Your task to perform on an android device: Open network settings Image 0: 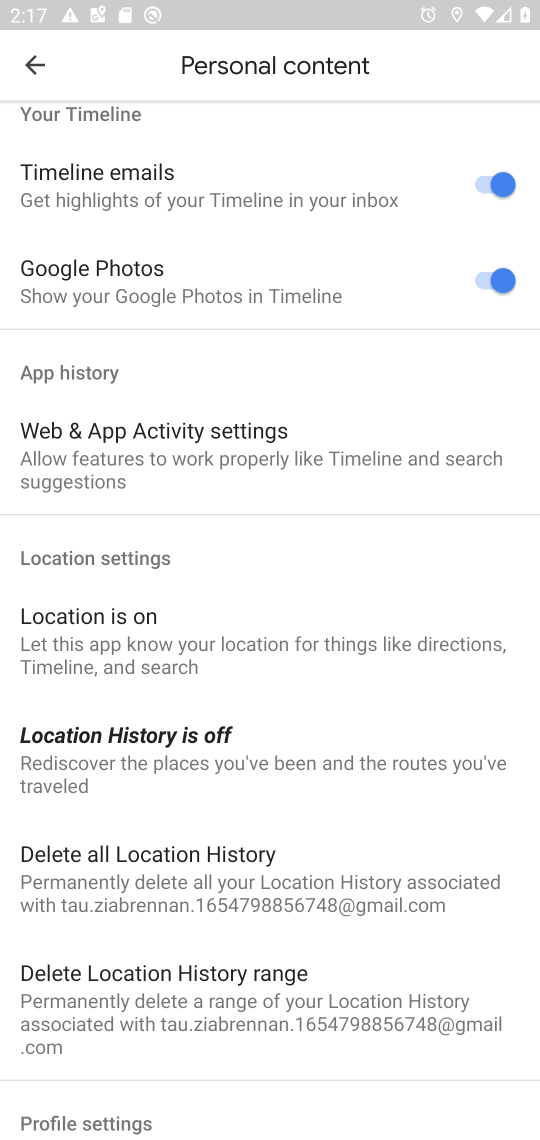
Step 0: press home button
Your task to perform on an android device: Open network settings Image 1: 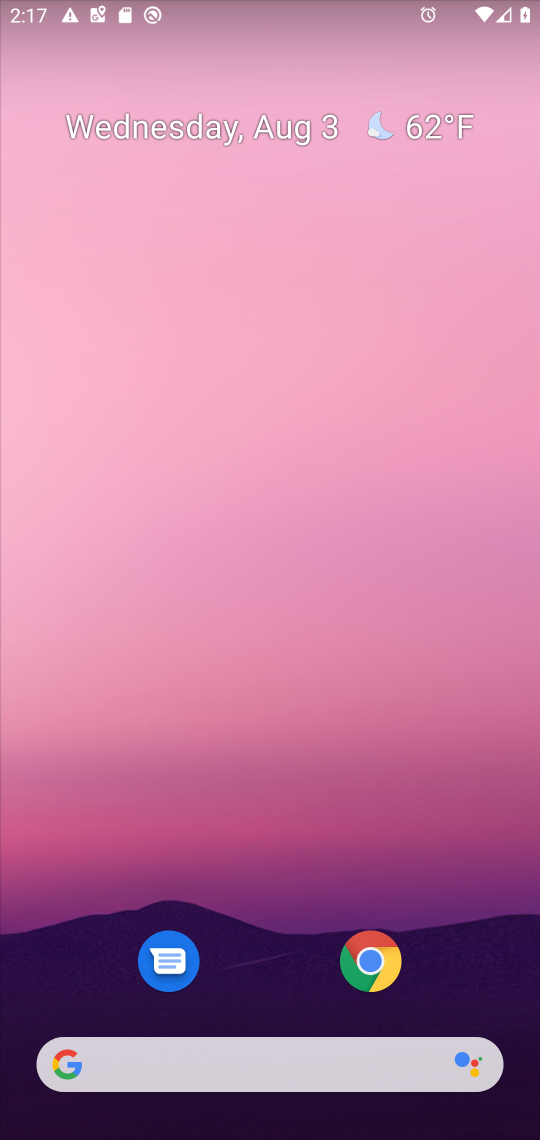
Step 1: drag from (268, 893) to (271, 3)
Your task to perform on an android device: Open network settings Image 2: 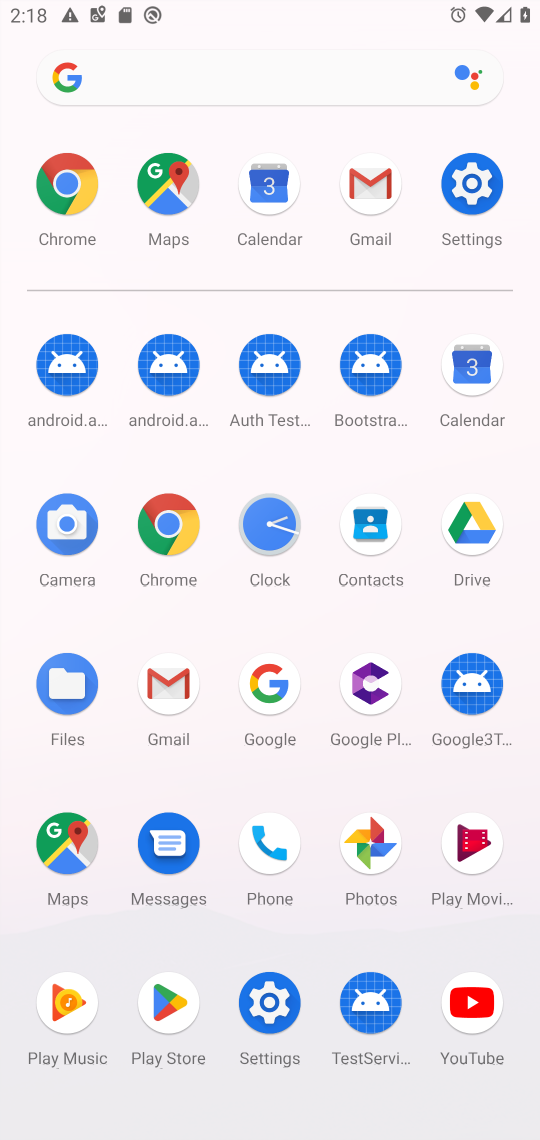
Step 2: click (463, 197)
Your task to perform on an android device: Open network settings Image 3: 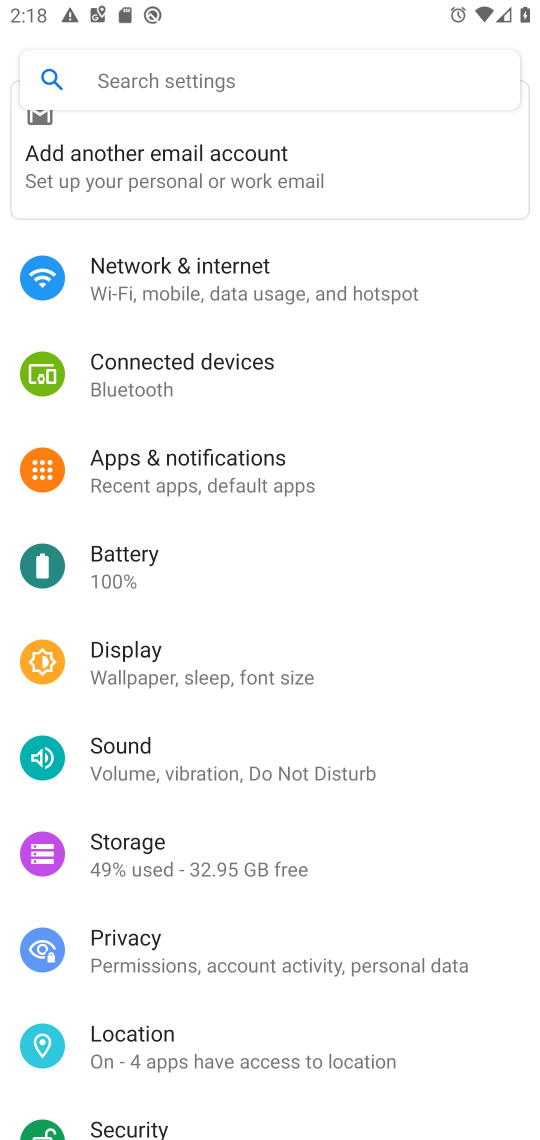
Step 3: click (151, 288)
Your task to perform on an android device: Open network settings Image 4: 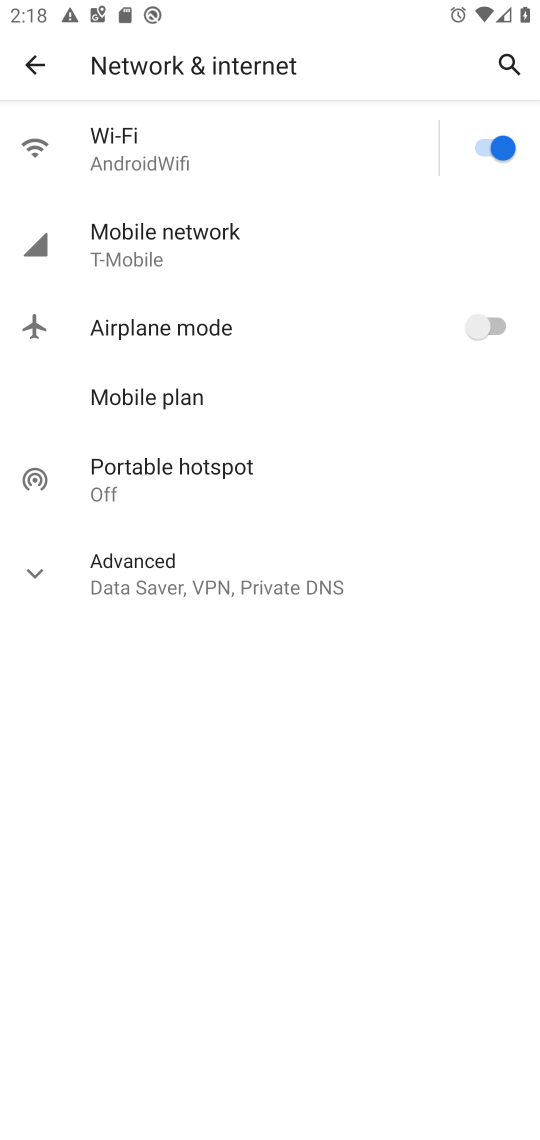
Step 4: click (139, 256)
Your task to perform on an android device: Open network settings Image 5: 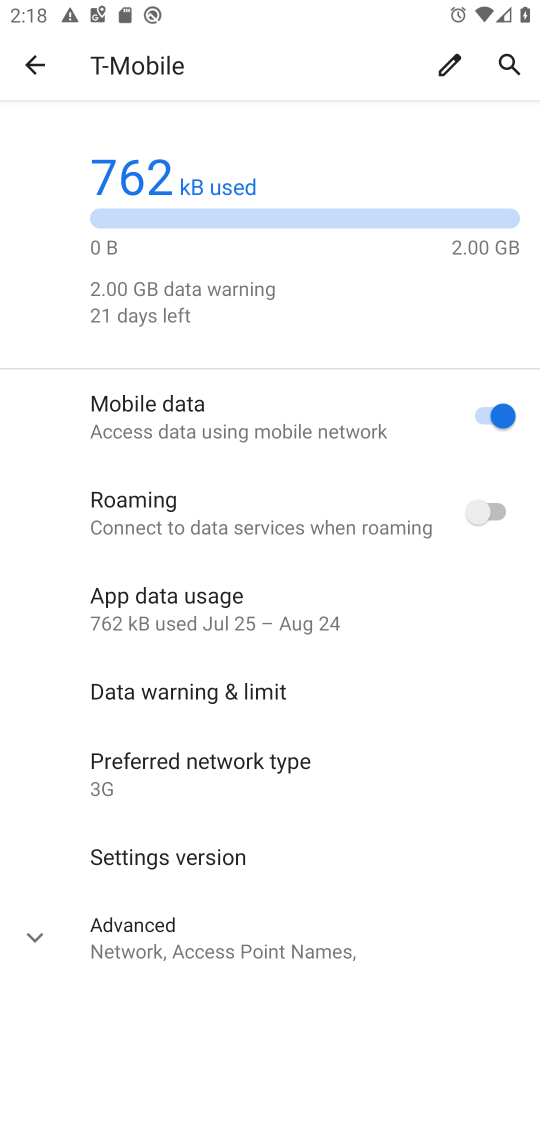
Step 5: click (35, 944)
Your task to perform on an android device: Open network settings Image 6: 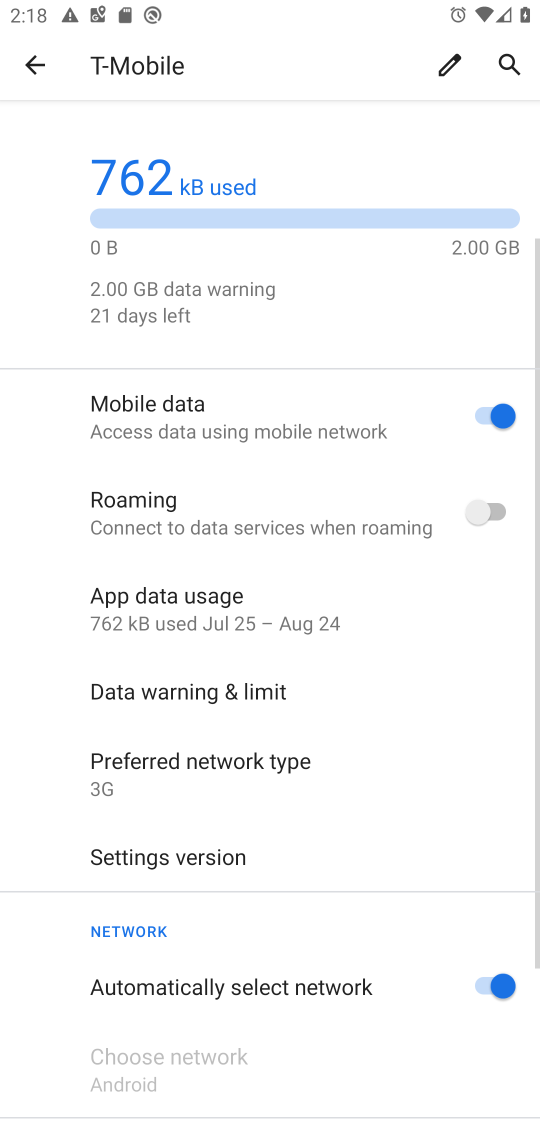
Step 6: task complete